Your task to perform on an android device: turn off translation in the chrome app Image 0: 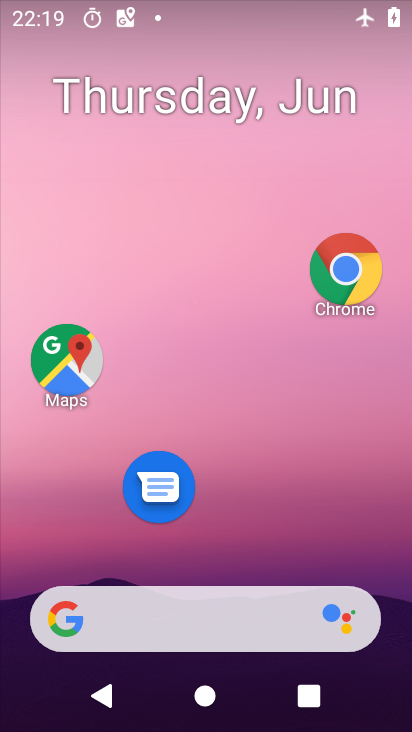
Step 0: drag from (319, 58) to (324, 8)
Your task to perform on an android device: turn off translation in the chrome app Image 1: 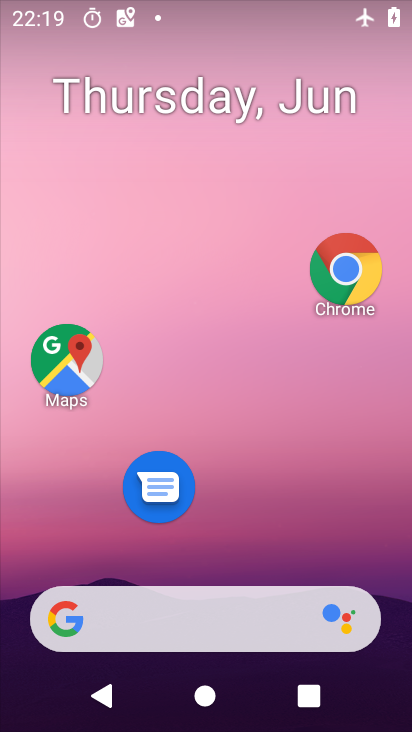
Step 1: click (348, 229)
Your task to perform on an android device: turn off translation in the chrome app Image 2: 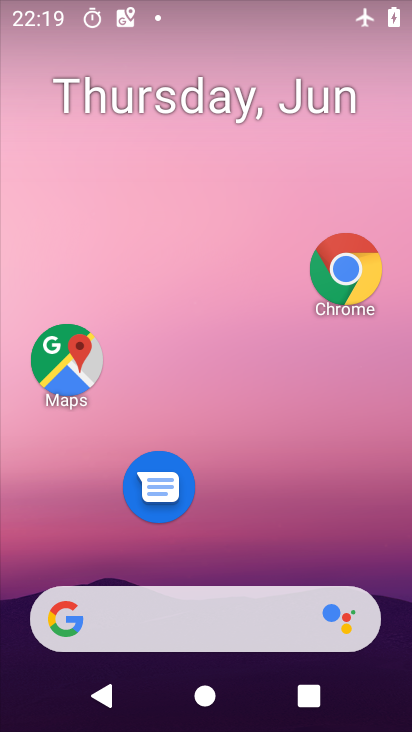
Step 2: click (345, 267)
Your task to perform on an android device: turn off translation in the chrome app Image 3: 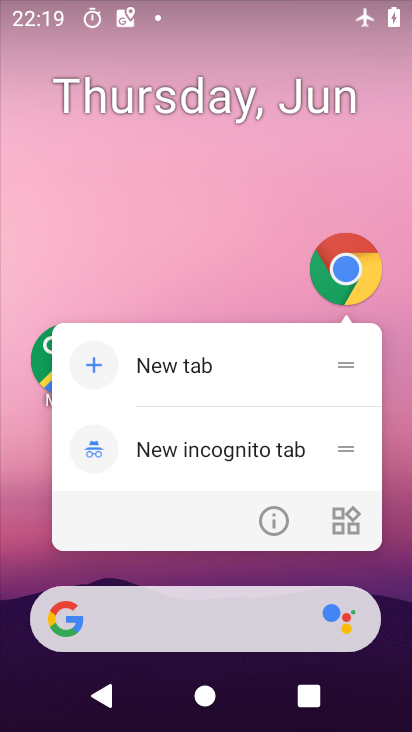
Step 3: click (270, 522)
Your task to perform on an android device: turn off translation in the chrome app Image 4: 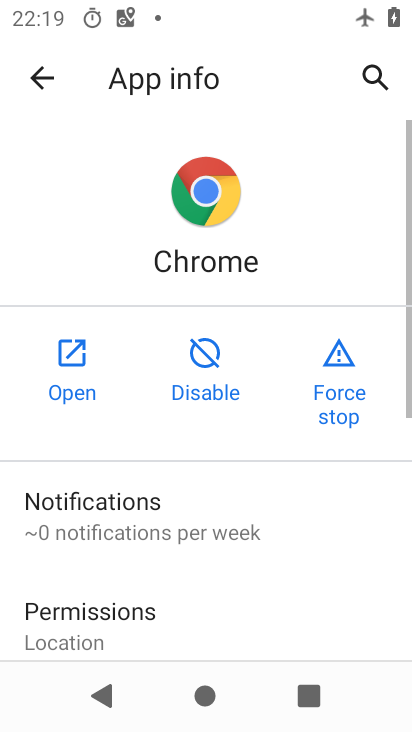
Step 4: click (89, 350)
Your task to perform on an android device: turn off translation in the chrome app Image 5: 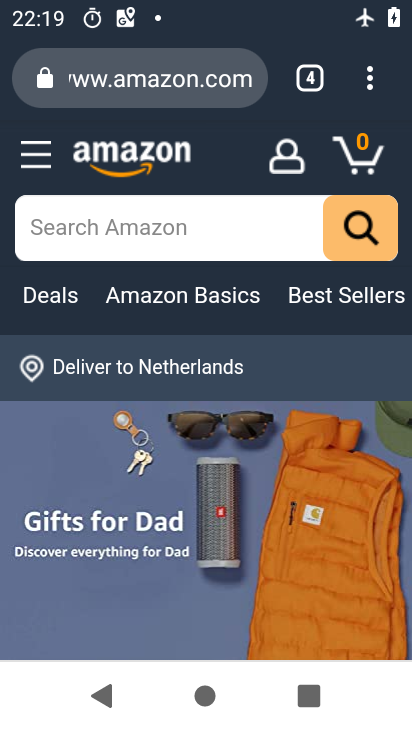
Step 5: click (349, 89)
Your task to perform on an android device: turn off translation in the chrome app Image 6: 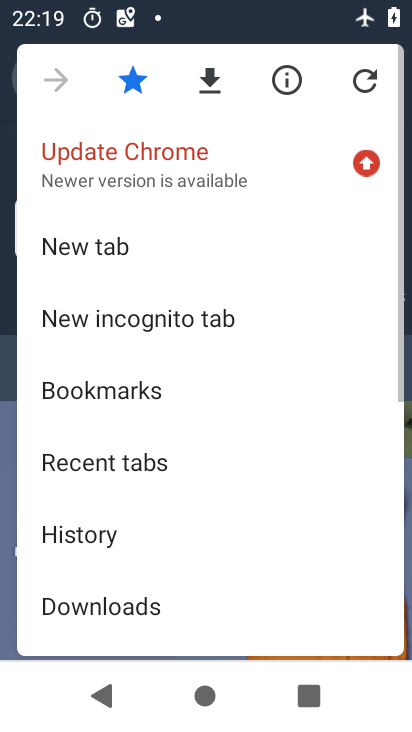
Step 6: drag from (172, 548) to (179, 119)
Your task to perform on an android device: turn off translation in the chrome app Image 7: 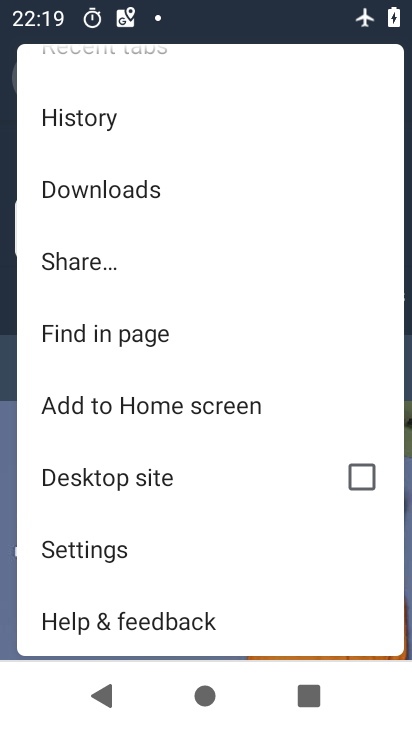
Step 7: click (131, 557)
Your task to perform on an android device: turn off translation in the chrome app Image 8: 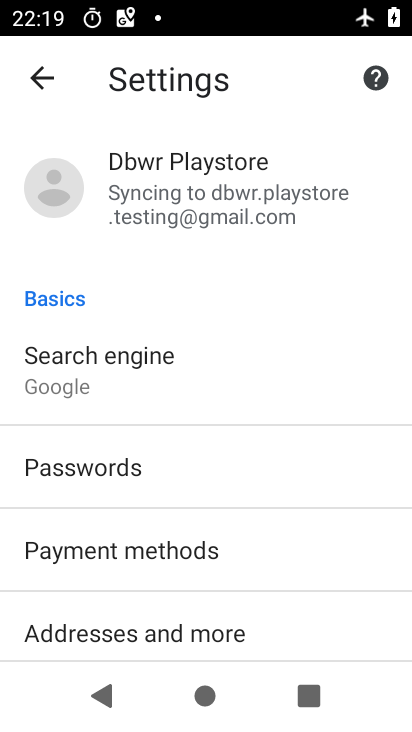
Step 8: drag from (205, 562) to (241, 216)
Your task to perform on an android device: turn off translation in the chrome app Image 9: 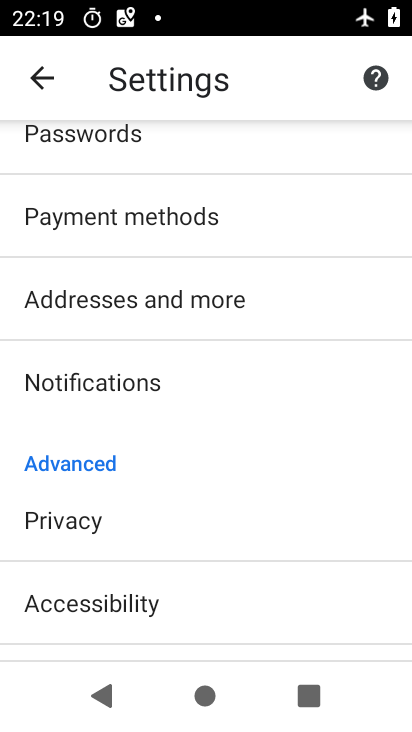
Step 9: drag from (182, 565) to (178, 139)
Your task to perform on an android device: turn off translation in the chrome app Image 10: 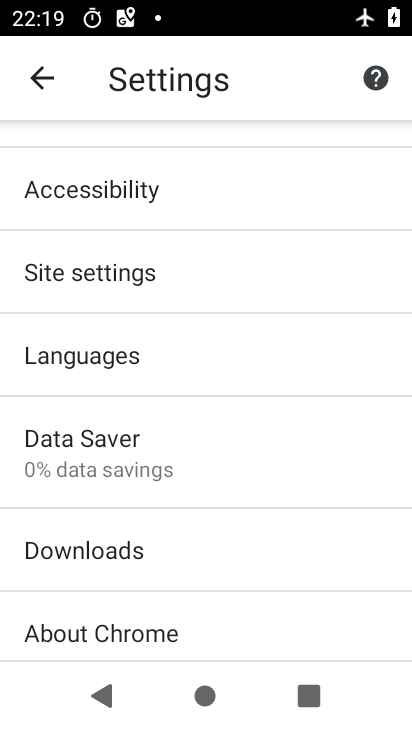
Step 10: click (145, 376)
Your task to perform on an android device: turn off translation in the chrome app Image 11: 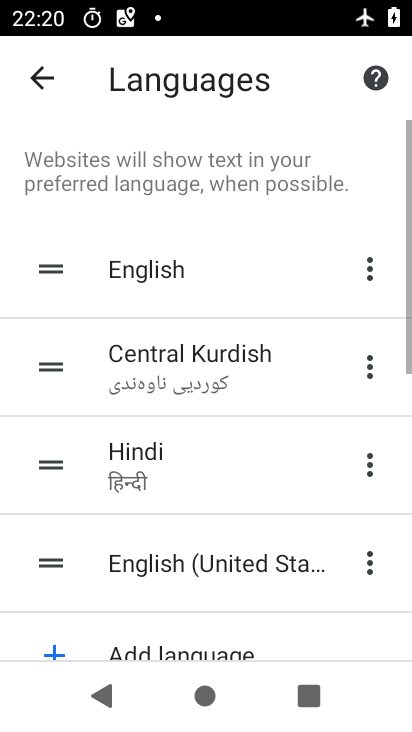
Step 11: drag from (273, 554) to (328, 11)
Your task to perform on an android device: turn off translation in the chrome app Image 12: 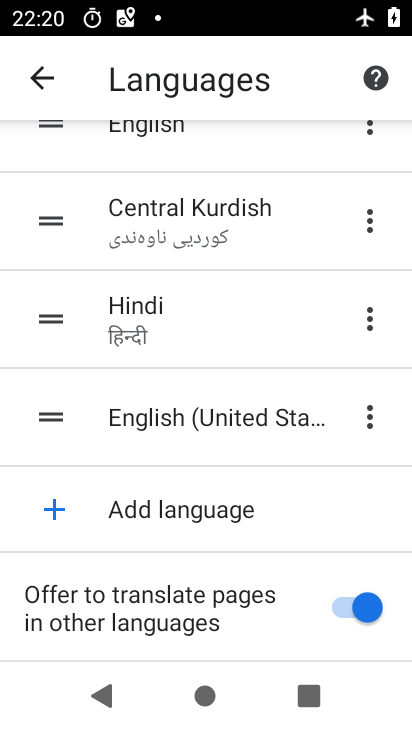
Step 12: click (358, 614)
Your task to perform on an android device: turn off translation in the chrome app Image 13: 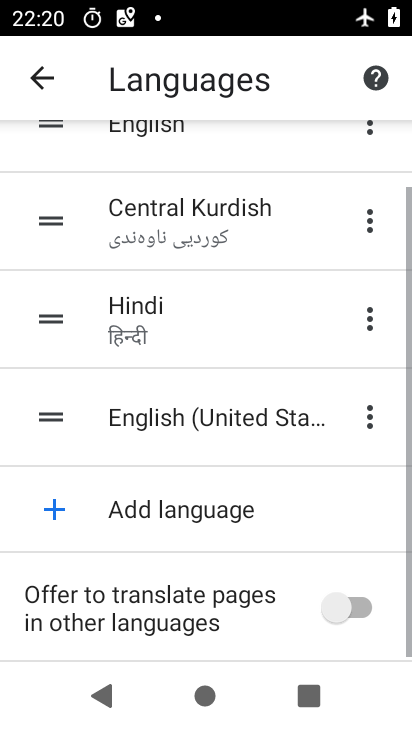
Step 13: task complete